Your task to perform on an android device: Show me recent news Image 0: 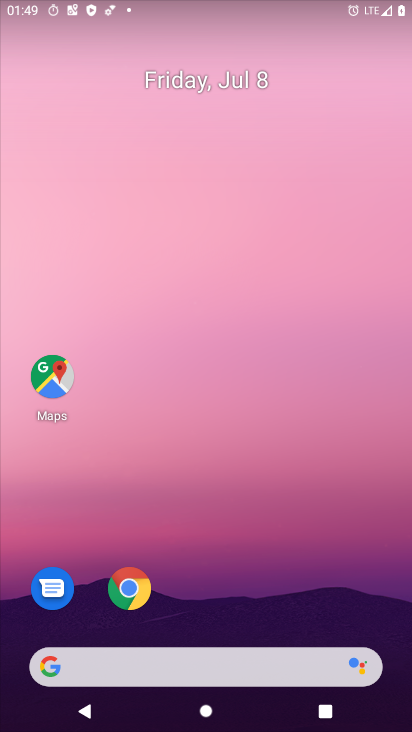
Step 0: drag from (261, 529) to (264, 51)
Your task to perform on an android device: Show me recent news Image 1: 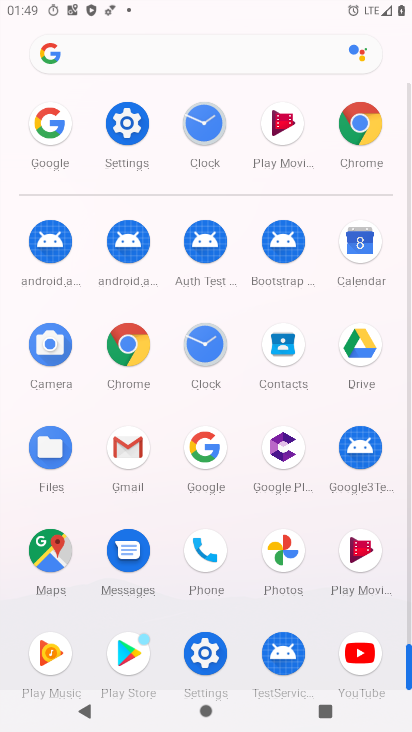
Step 1: click (206, 54)
Your task to perform on an android device: Show me recent news Image 2: 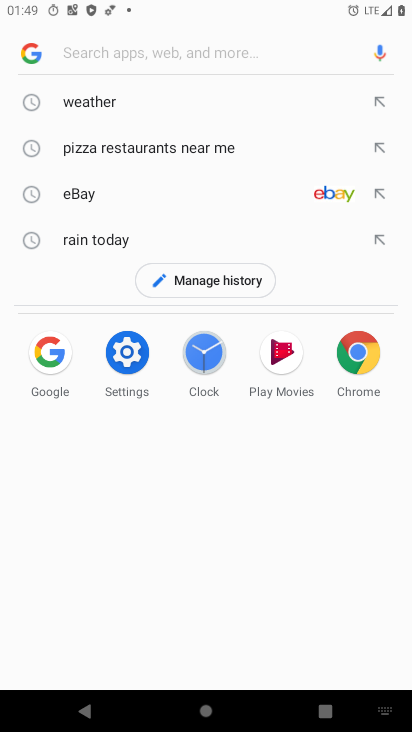
Step 2: type "recent news"
Your task to perform on an android device: Show me recent news Image 3: 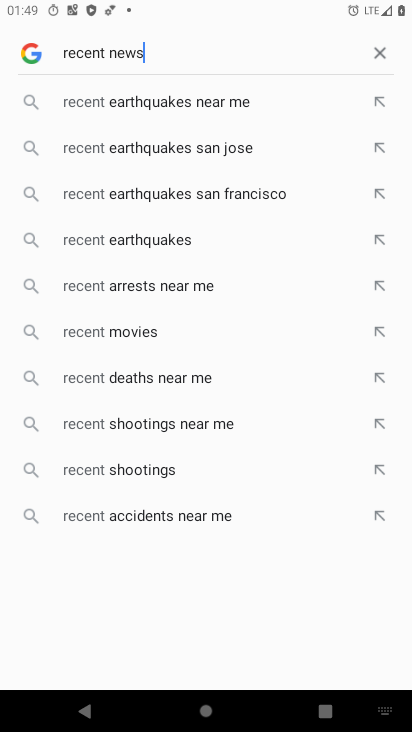
Step 3: type ""
Your task to perform on an android device: Show me recent news Image 4: 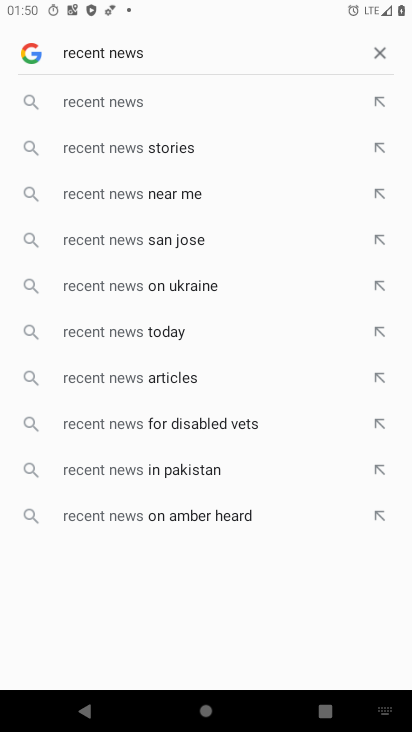
Step 4: click (98, 94)
Your task to perform on an android device: Show me recent news Image 5: 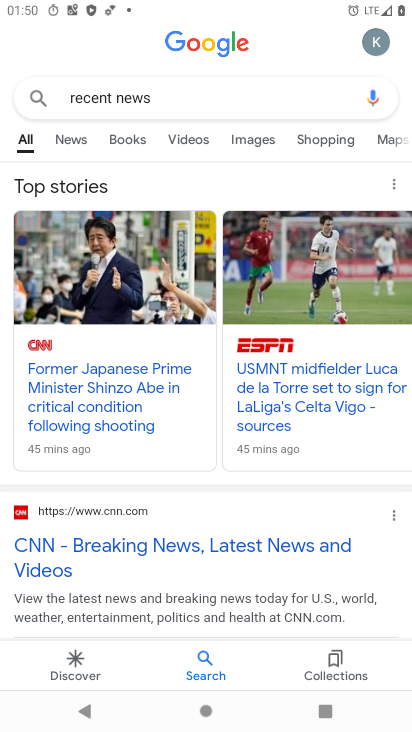
Step 5: click (94, 564)
Your task to perform on an android device: Show me recent news Image 6: 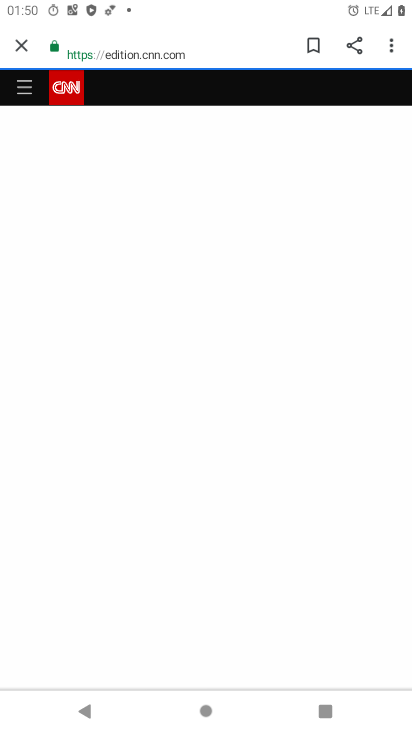
Step 6: task complete